Your task to perform on an android device: delete the emails in spam in the gmail app Image 0: 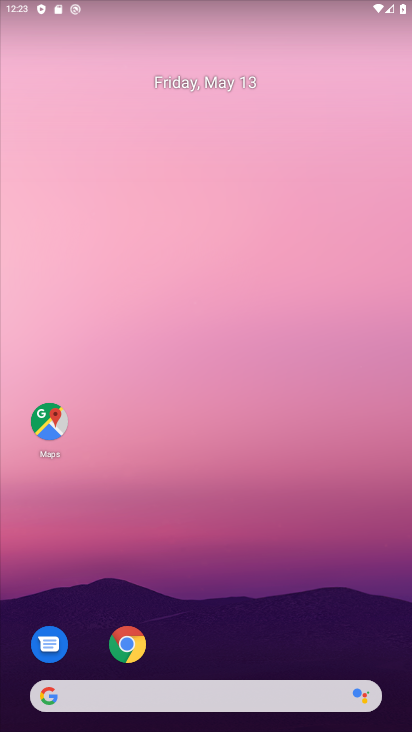
Step 0: drag from (234, 624) to (223, 201)
Your task to perform on an android device: delete the emails in spam in the gmail app Image 1: 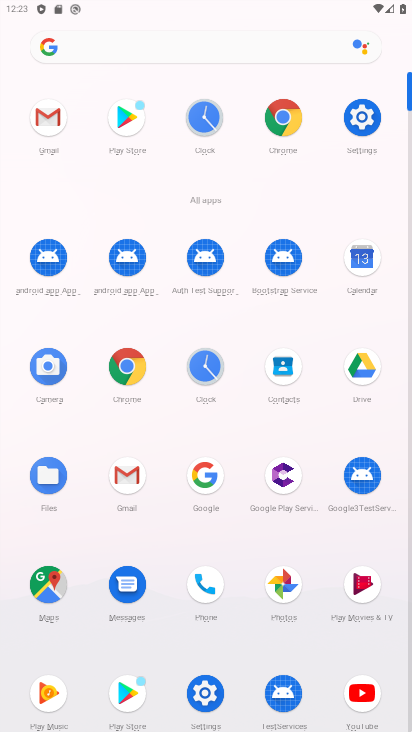
Step 1: click (54, 112)
Your task to perform on an android device: delete the emails in spam in the gmail app Image 2: 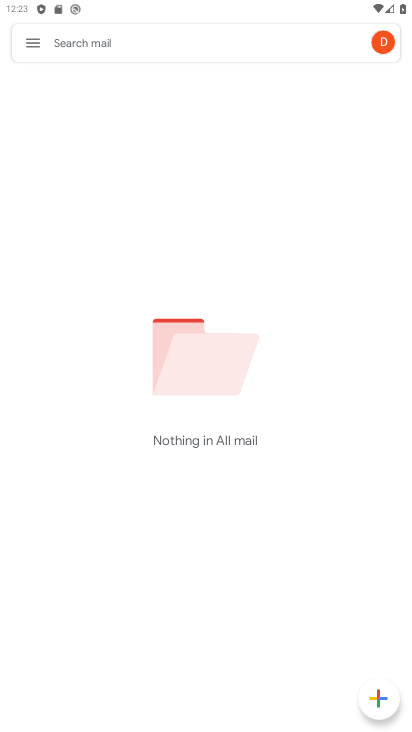
Step 2: click (32, 43)
Your task to perform on an android device: delete the emails in spam in the gmail app Image 3: 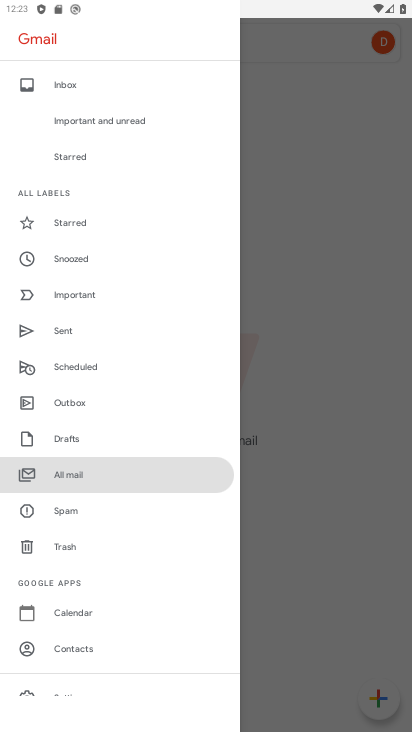
Step 3: click (71, 508)
Your task to perform on an android device: delete the emails in spam in the gmail app Image 4: 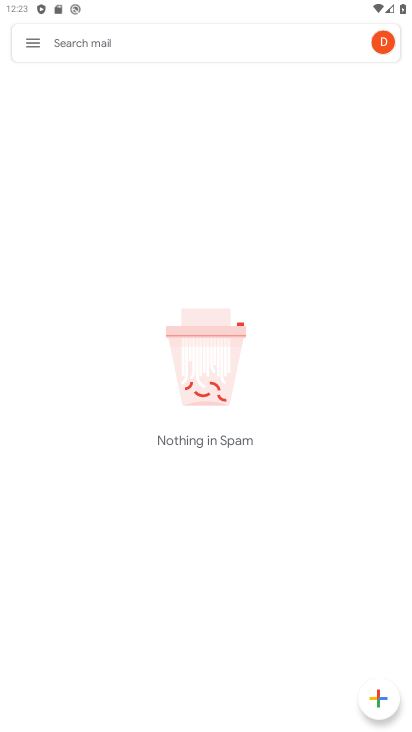
Step 4: task complete